Your task to perform on an android device: install app "Contacts" Image 0: 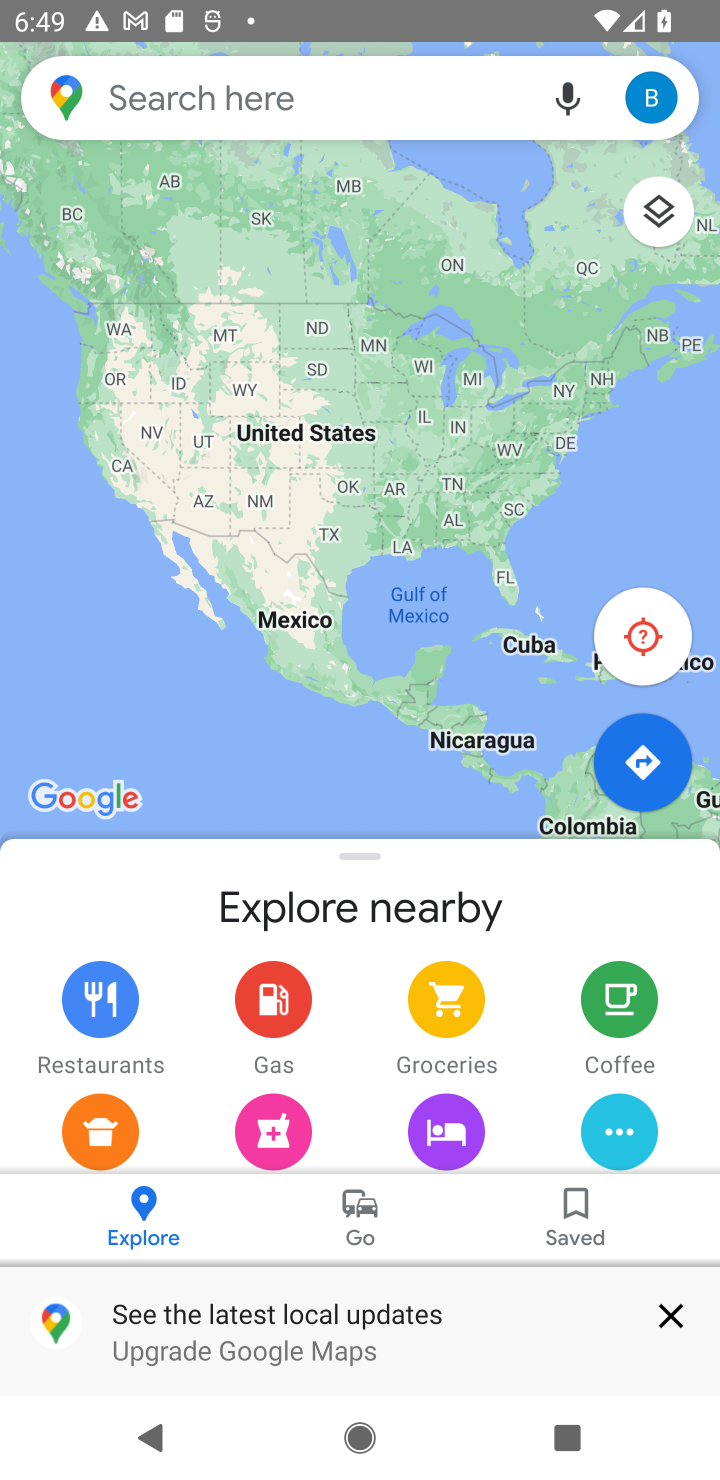
Step 0: press home button
Your task to perform on an android device: install app "Contacts" Image 1: 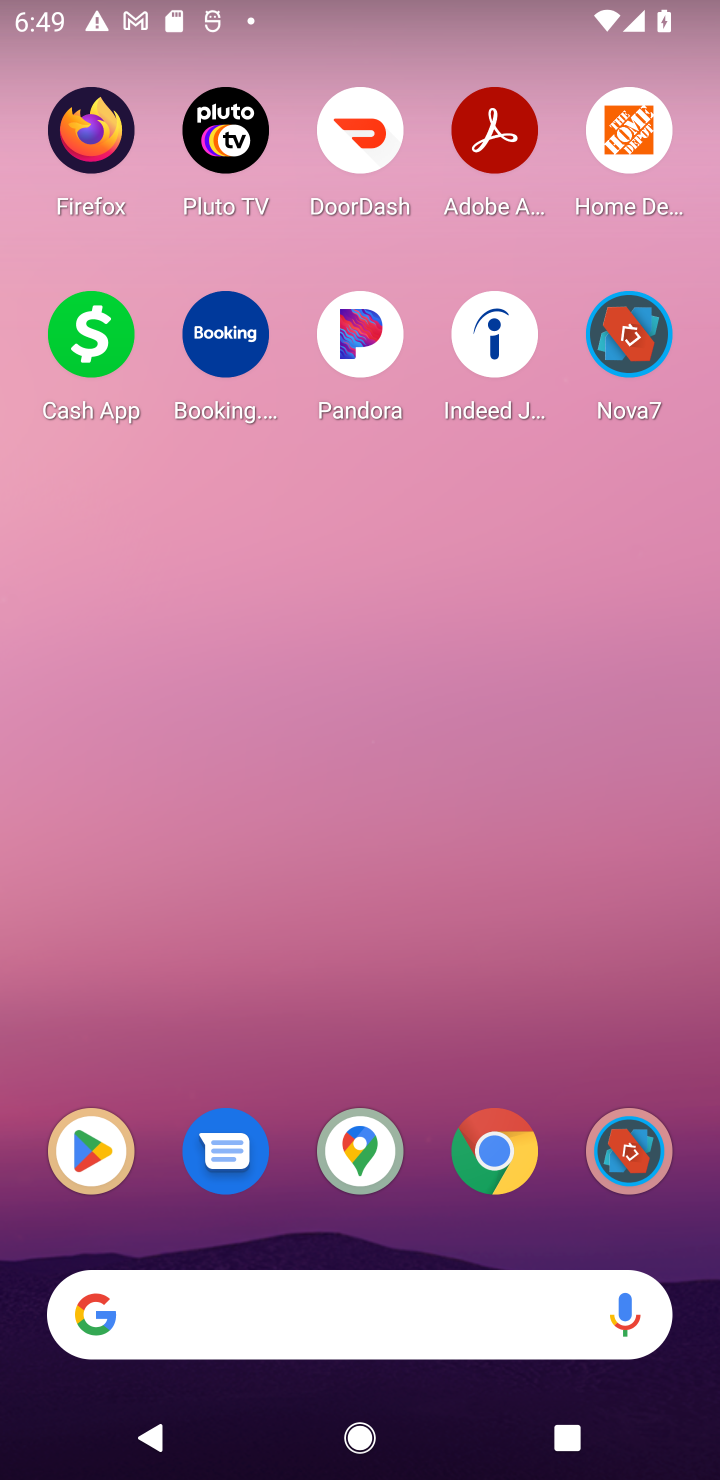
Step 1: drag from (299, 1335) to (170, 16)
Your task to perform on an android device: install app "Contacts" Image 2: 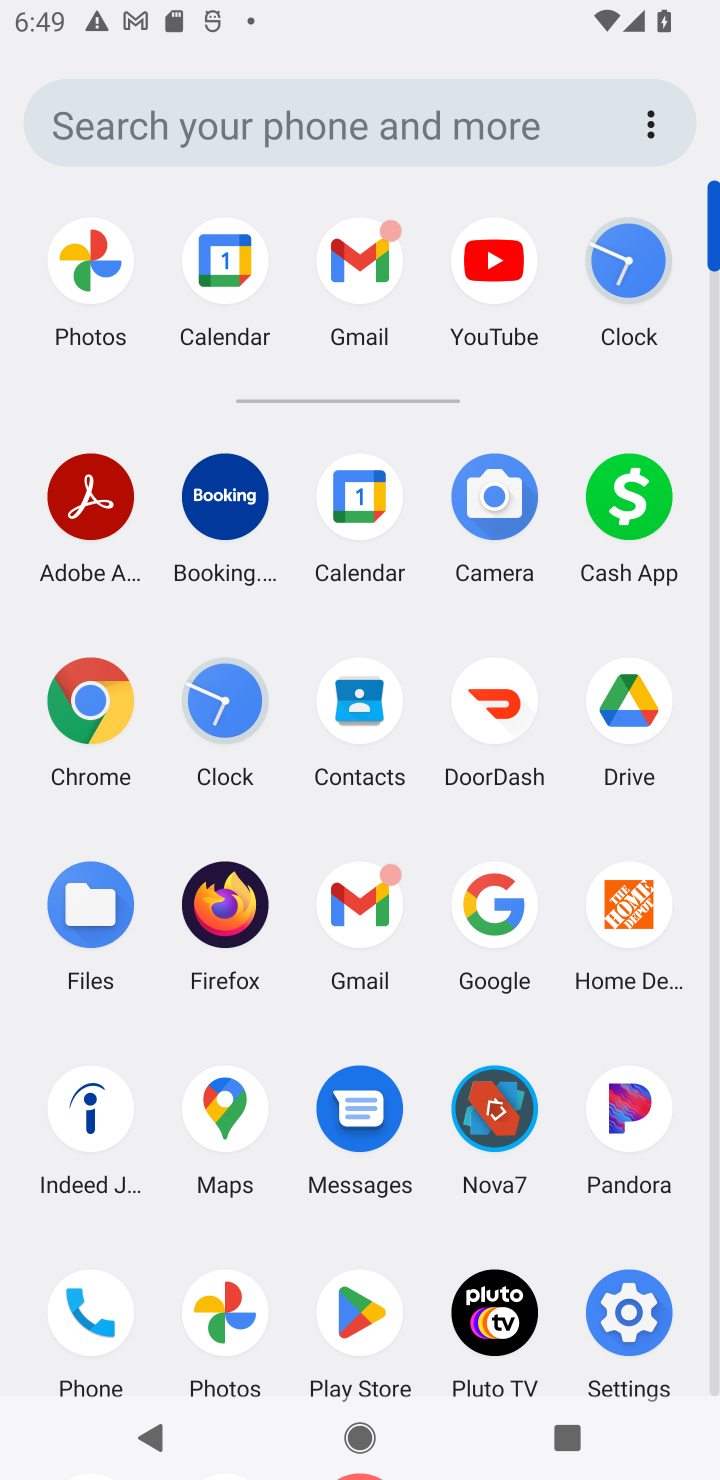
Step 2: click (363, 1298)
Your task to perform on an android device: install app "Contacts" Image 3: 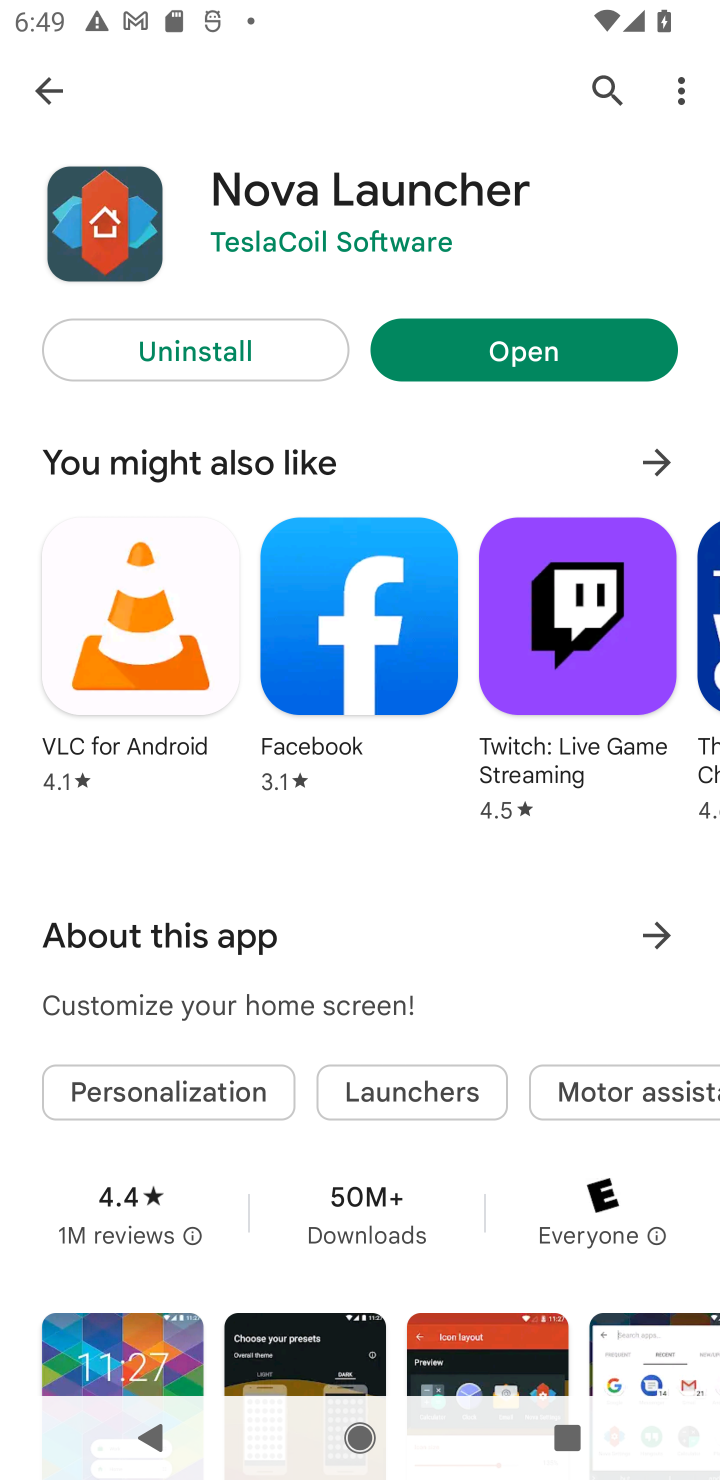
Step 3: click (610, 90)
Your task to perform on an android device: install app "Contacts" Image 4: 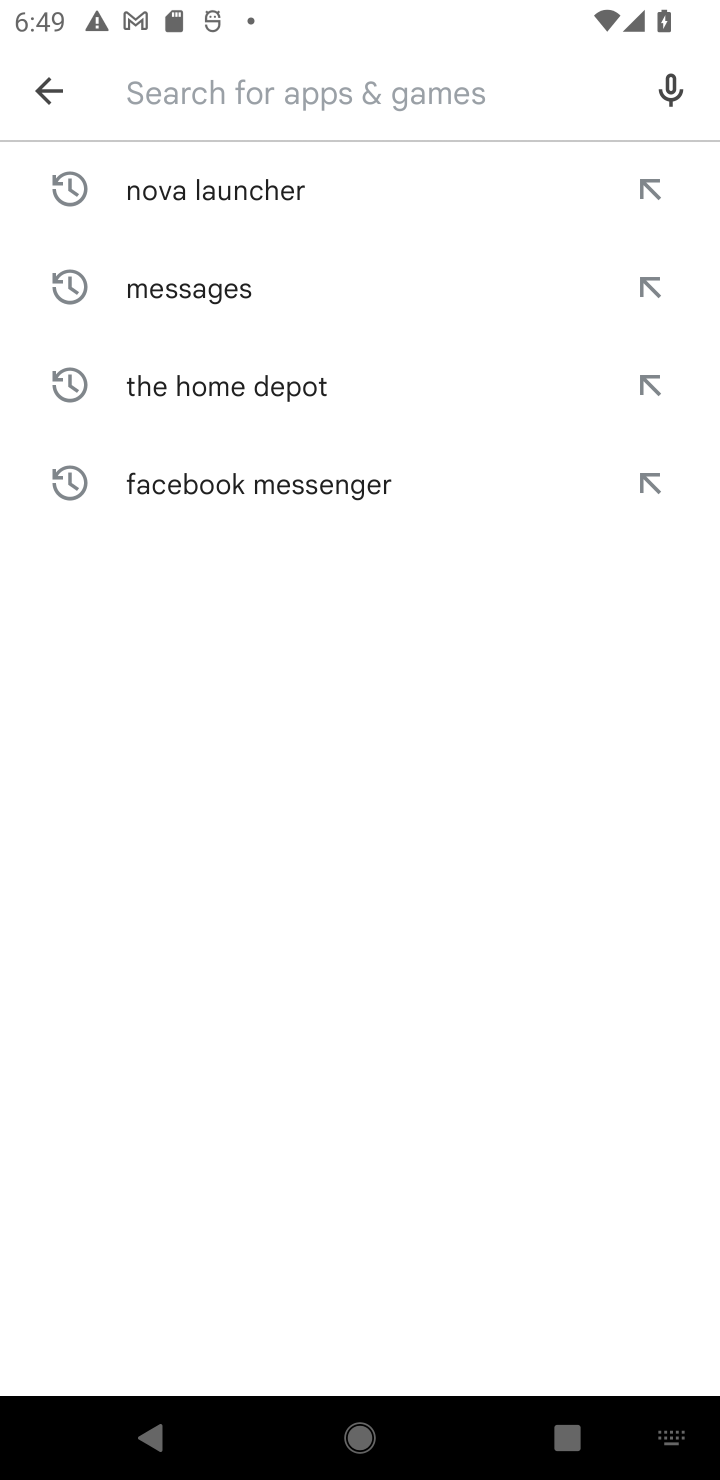
Step 4: type "contact"
Your task to perform on an android device: install app "Contacts" Image 5: 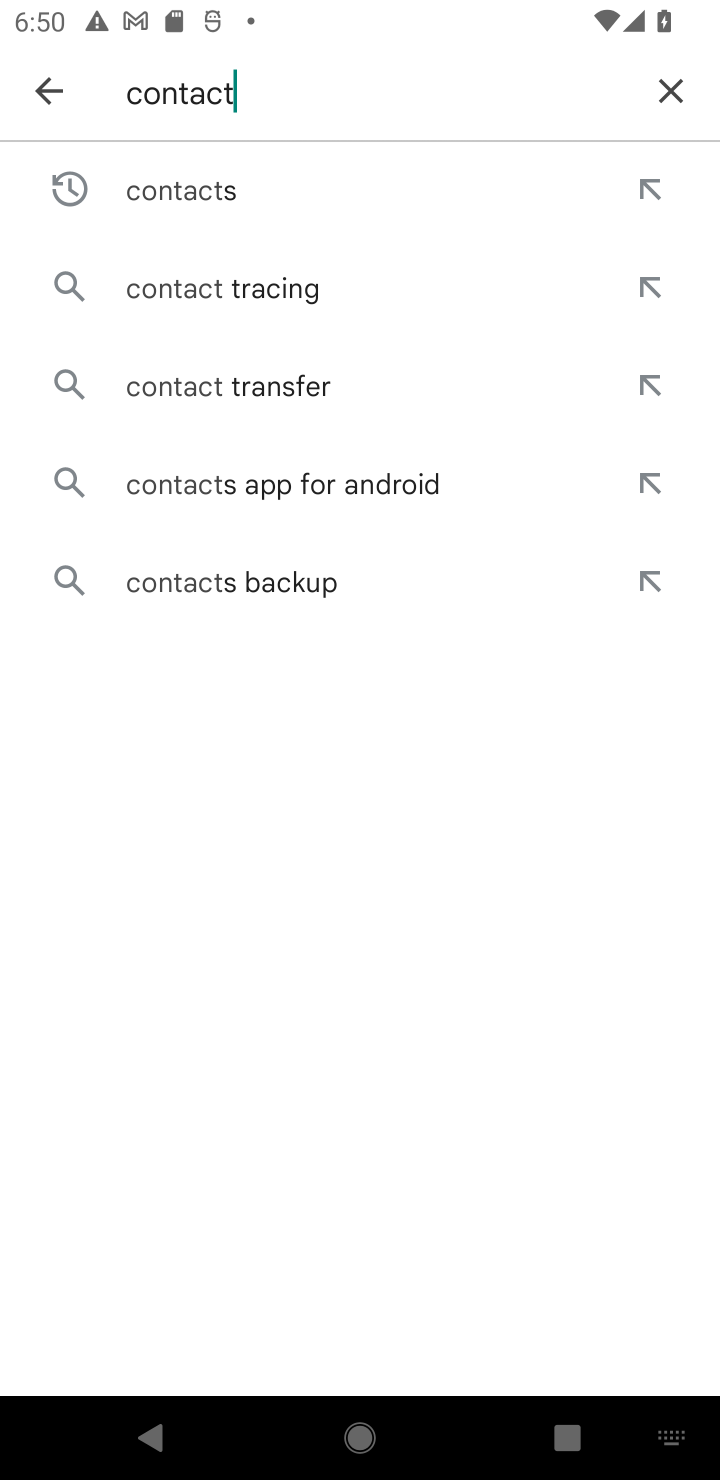
Step 5: click (187, 174)
Your task to perform on an android device: install app "Contacts" Image 6: 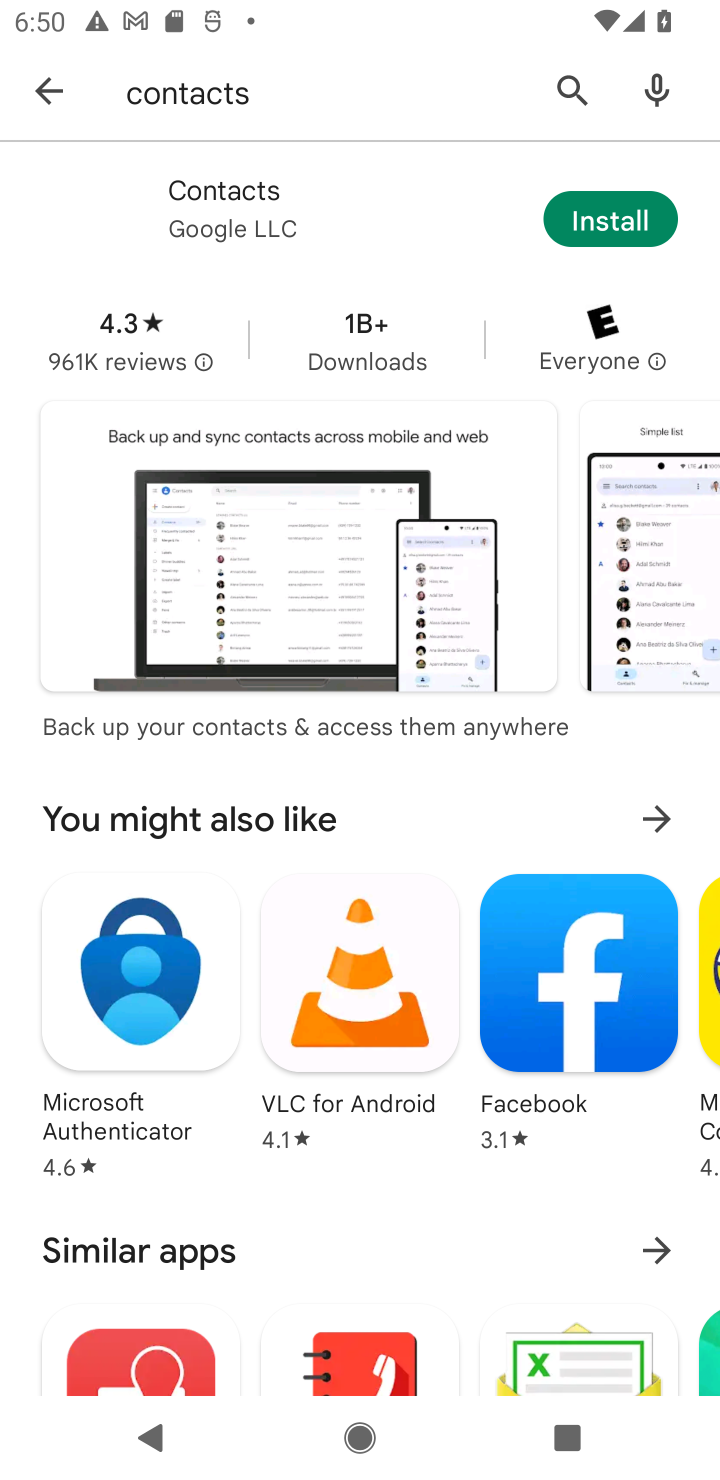
Step 6: click (617, 210)
Your task to perform on an android device: install app "Contacts" Image 7: 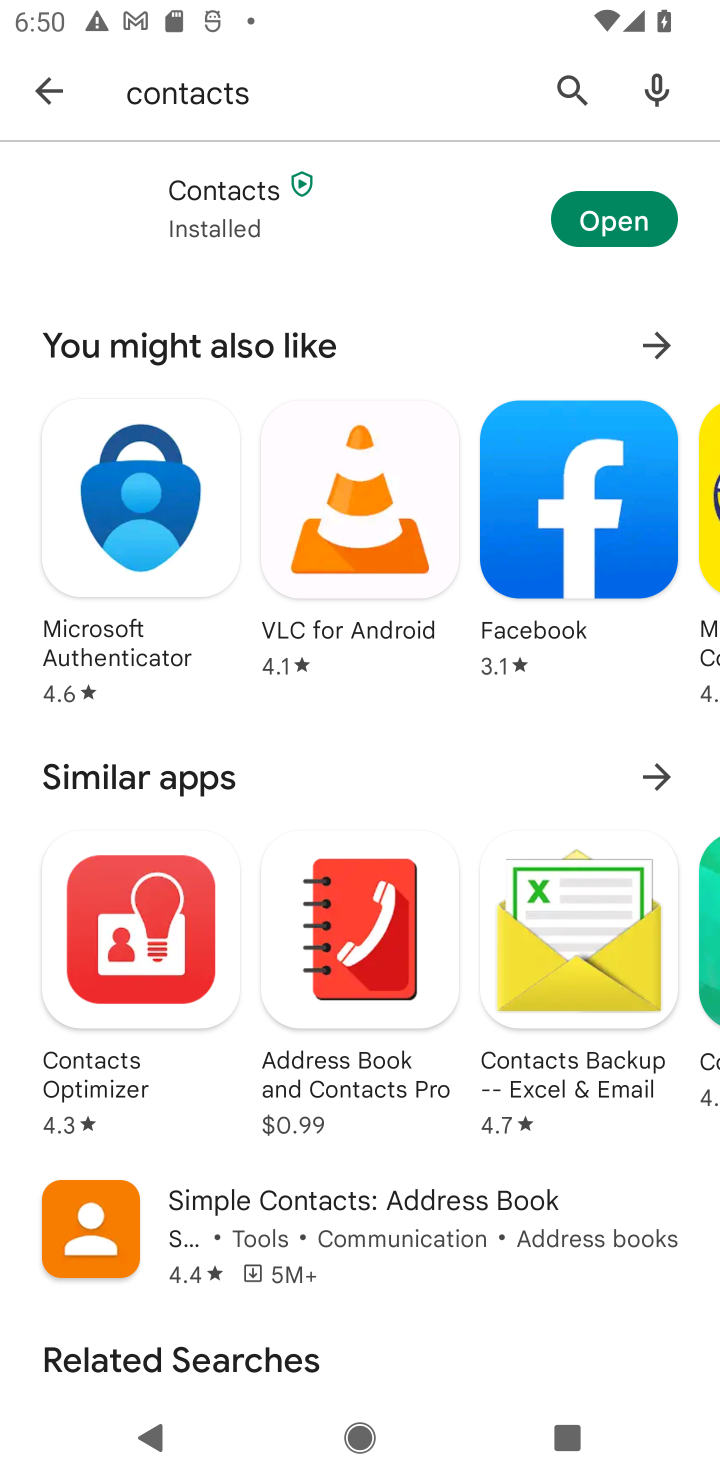
Step 7: task complete